Your task to perform on an android device: open a bookmark in the chrome app Image 0: 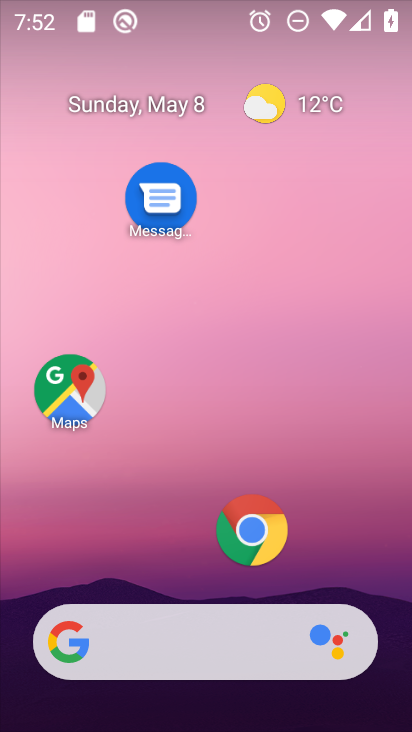
Step 0: press home button
Your task to perform on an android device: open a bookmark in the chrome app Image 1: 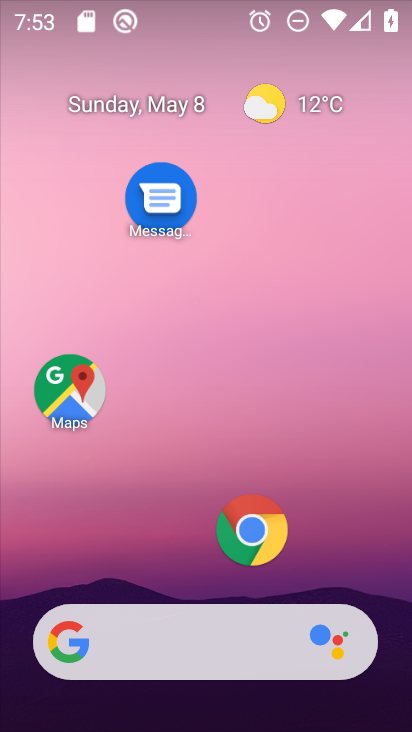
Step 1: click (250, 535)
Your task to perform on an android device: open a bookmark in the chrome app Image 2: 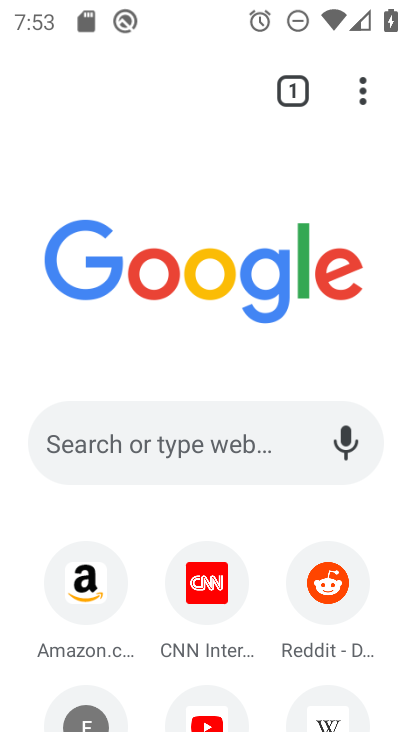
Step 2: click (368, 84)
Your task to perform on an android device: open a bookmark in the chrome app Image 3: 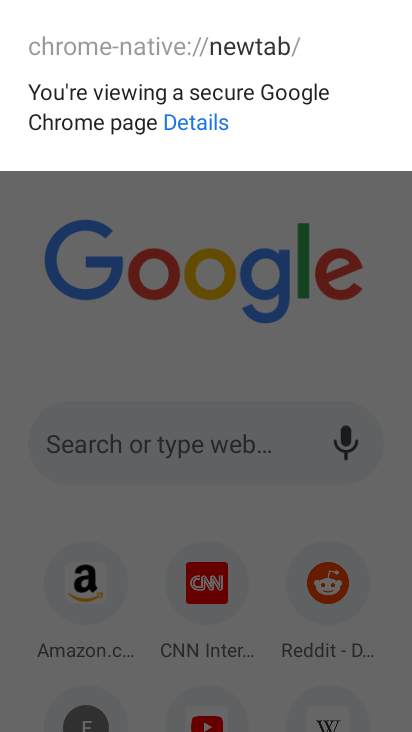
Step 3: click (162, 351)
Your task to perform on an android device: open a bookmark in the chrome app Image 4: 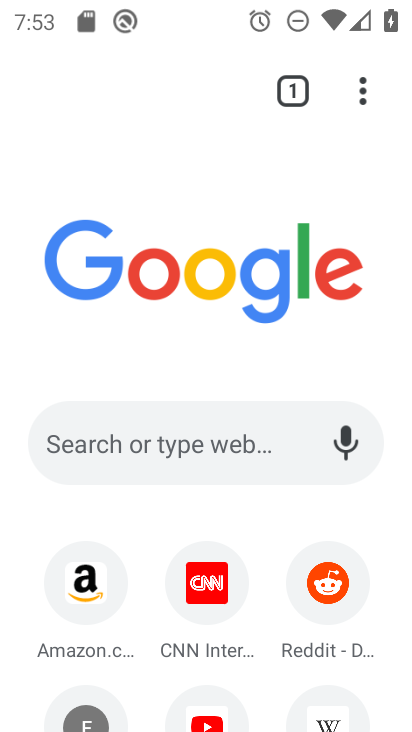
Step 4: click (357, 97)
Your task to perform on an android device: open a bookmark in the chrome app Image 5: 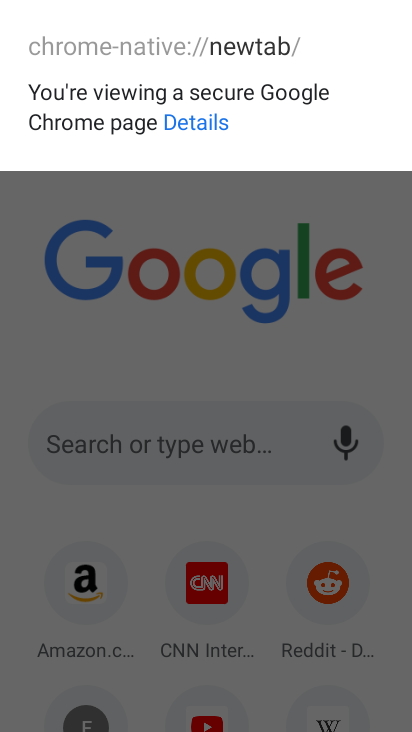
Step 5: click (222, 308)
Your task to perform on an android device: open a bookmark in the chrome app Image 6: 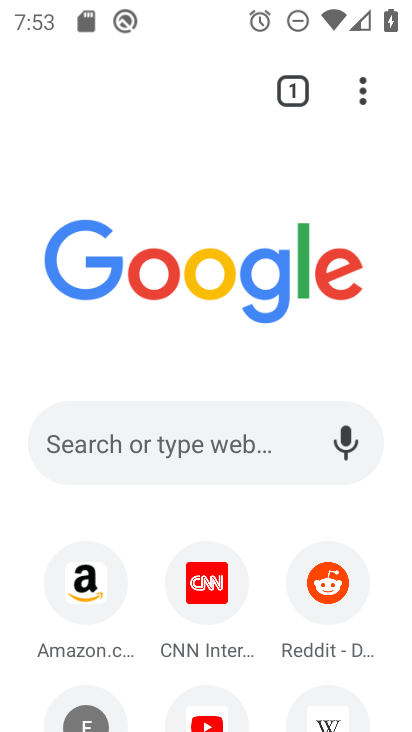
Step 6: click (363, 93)
Your task to perform on an android device: open a bookmark in the chrome app Image 7: 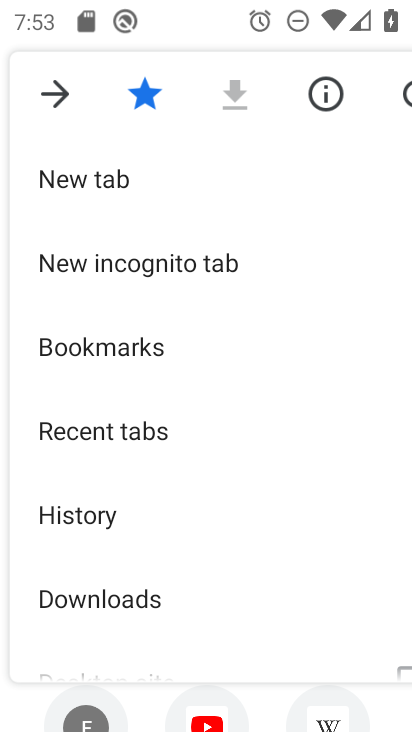
Step 7: click (173, 342)
Your task to perform on an android device: open a bookmark in the chrome app Image 8: 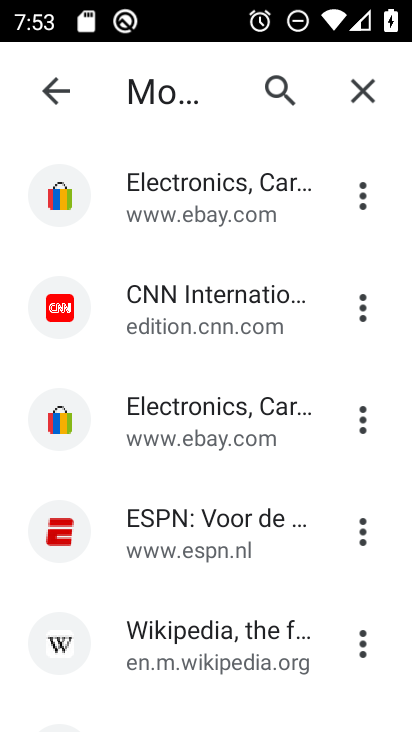
Step 8: click (204, 417)
Your task to perform on an android device: open a bookmark in the chrome app Image 9: 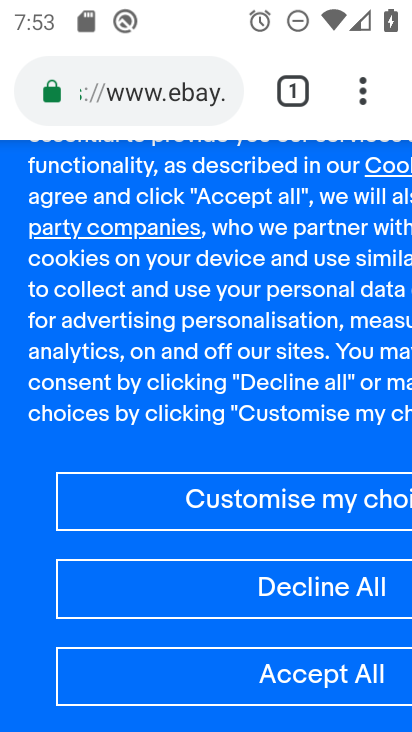
Step 9: click (332, 694)
Your task to perform on an android device: open a bookmark in the chrome app Image 10: 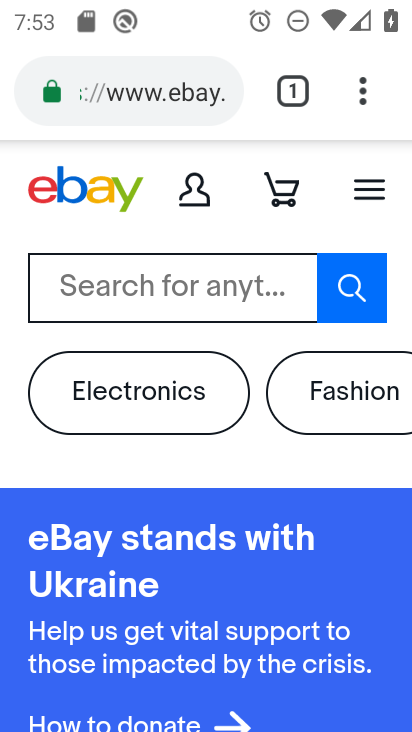
Step 10: task complete